Your task to perform on an android device: Open settings Image 0: 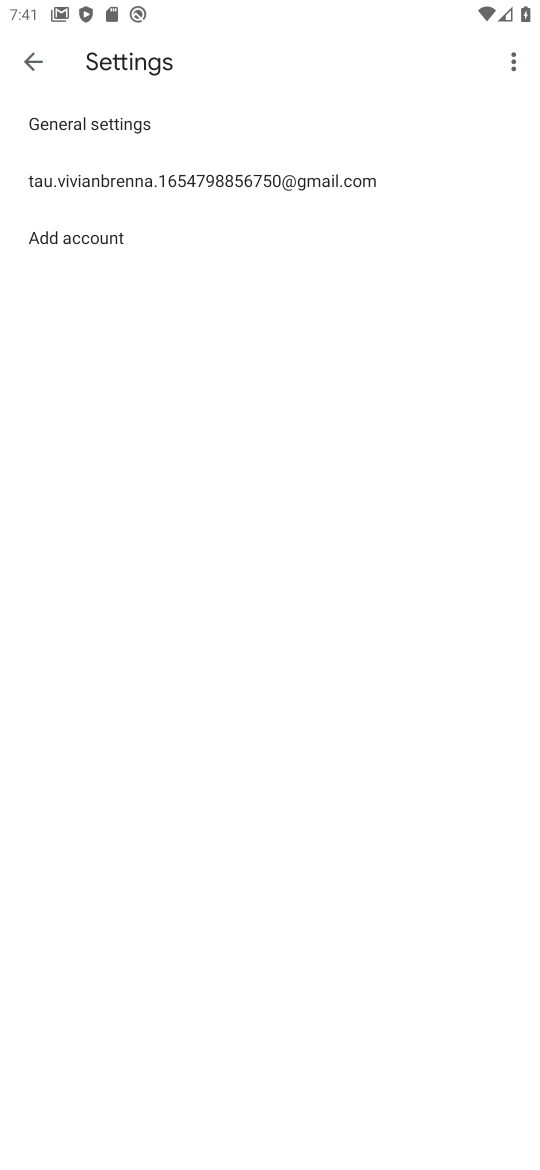
Step 0: press home button
Your task to perform on an android device: Open settings Image 1: 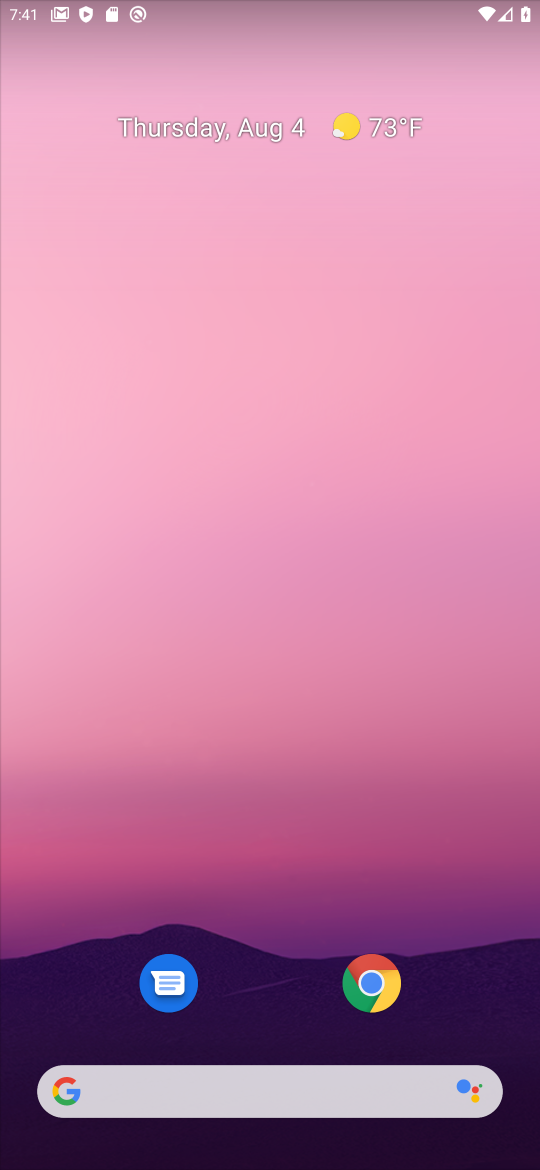
Step 1: drag from (240, 881) to (254, 368)
Your task to perform on an android device: Open settings Image 2: 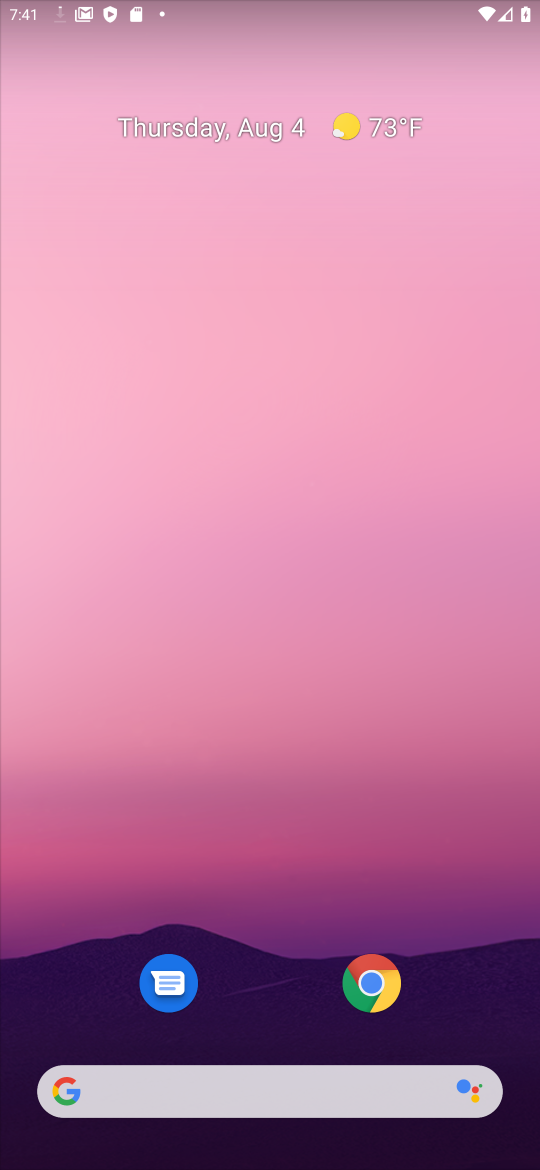
Step 2: drag from (290, 977) to (358, 255)
Your task to perform on an android device: Open settings Image 3: 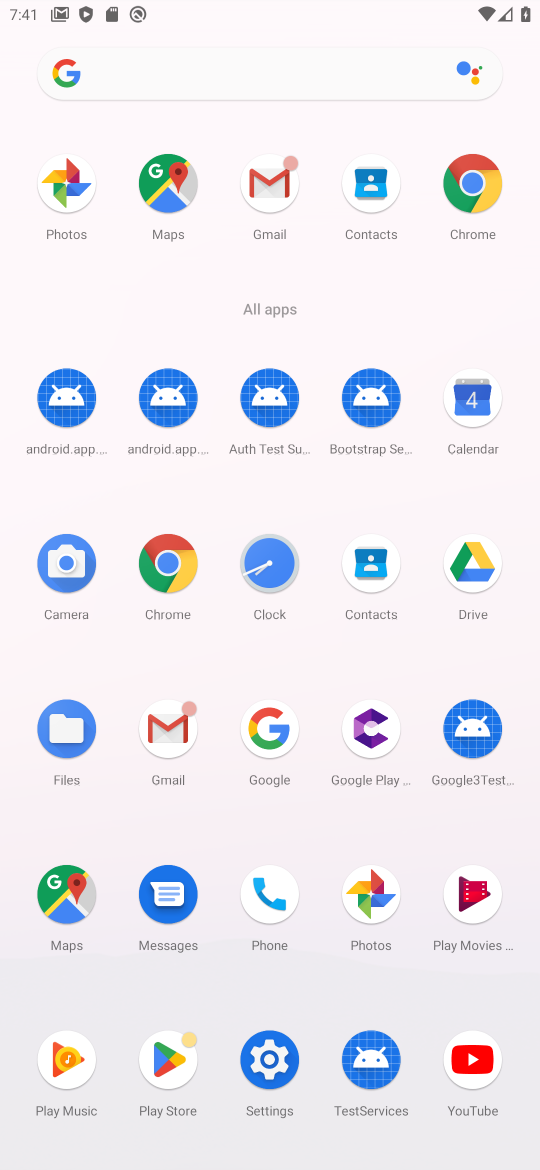
Step 3: click (257, 1084)
Your task to perform on an android device: Open settings Image 4: 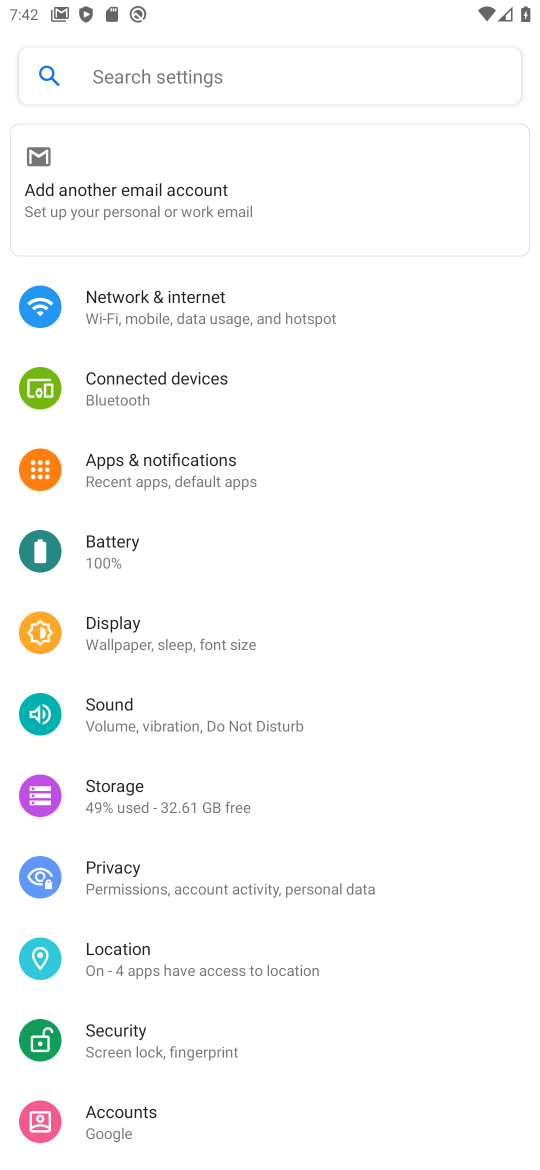
Step 4: task complete